Your task to perform on an android device: turn vacation reply on in the gmail app Image 0: 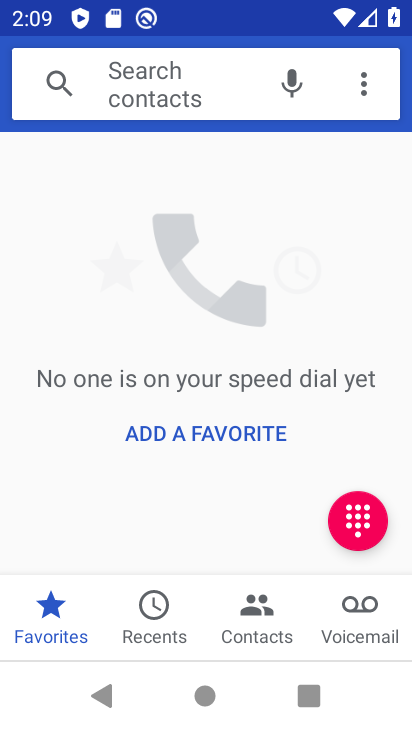
Step 0: press home button
Your task to perform on an android device: turn vacation reply on in the gmail app Image 1: 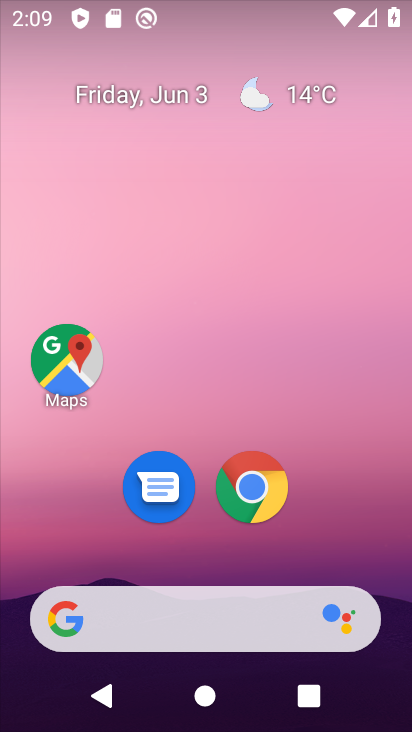
Step 1: drag from (329, 555) to (200, 17)
Your task to perform on an android device: turn vacation reply on in the gmail app Image 2: 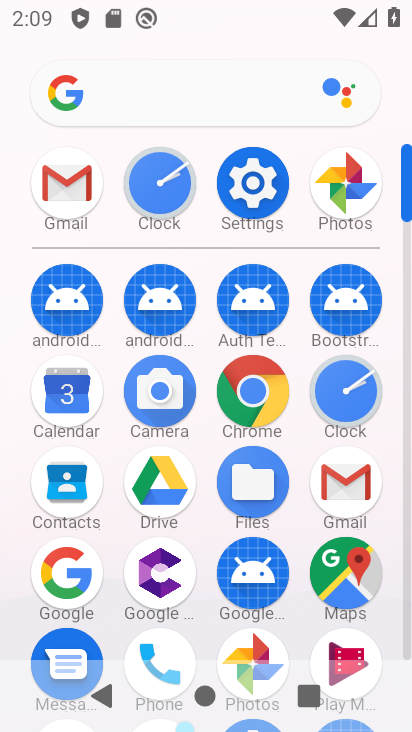
Step 2: click (65, 171)
Your task to perform on an android device: turn vacation reply on in the gmail app Image 3: 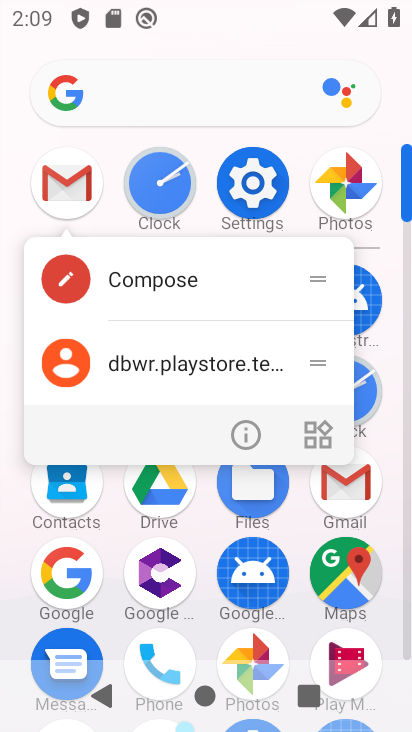
Step 3: click (60, 187)
Your task to perform on an android device: turn vacation reply on in the gmail app Image 4: 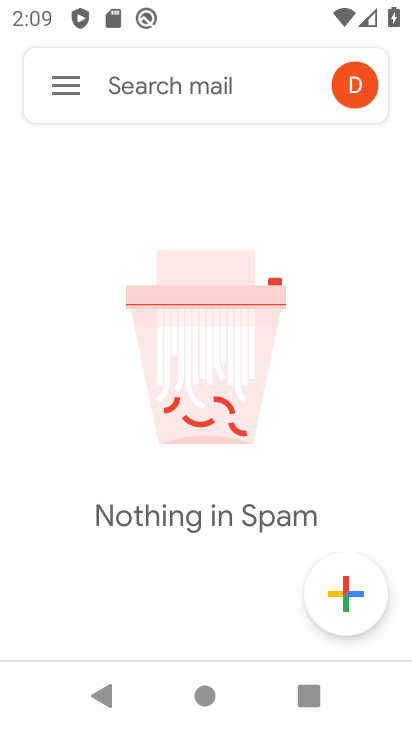
Step 4: click (72, 87)
Your task to perform on an android device: turn vacation reply on in the gmail app Image 5: 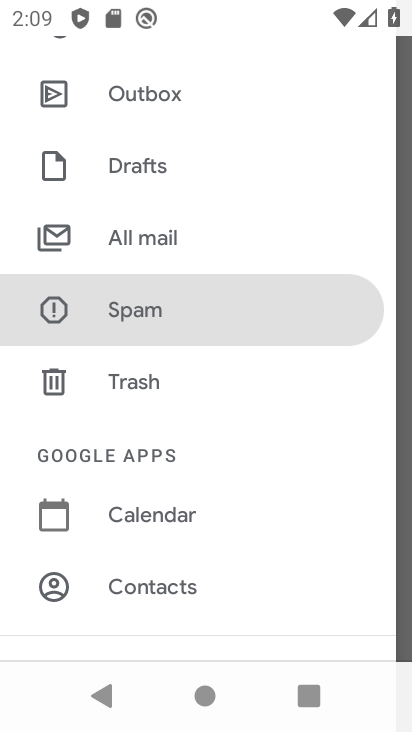
Step 5: drag from (267, 576) to (214, 64)
Your task to perform on an android device: turn vacation reply on in the gmail app Image 6: 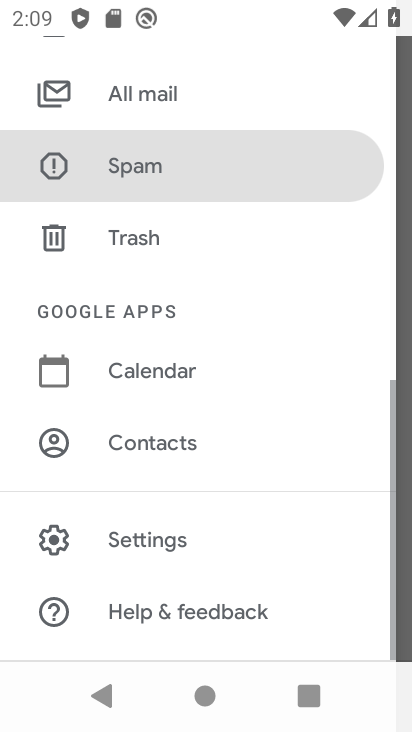
Step 6: click (213, 531)
Your task to perform on an android device: turn vacation reply on in the gmail app Image 7: 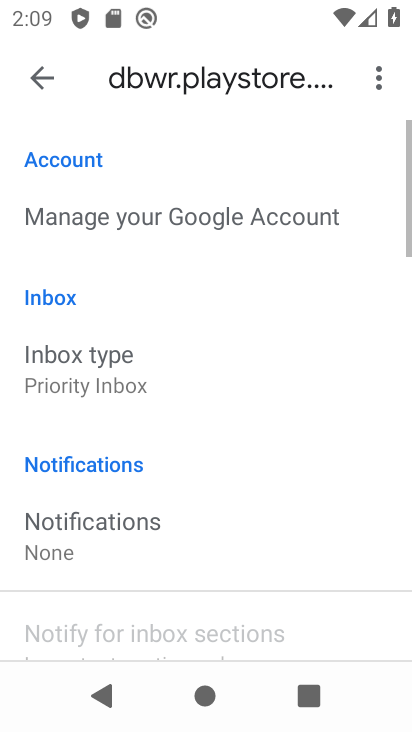
Step 7: drag from (232, 509) to (177, 68)
Your task to perform on an android device: turn vacation reply on in the gmail app Image 8: 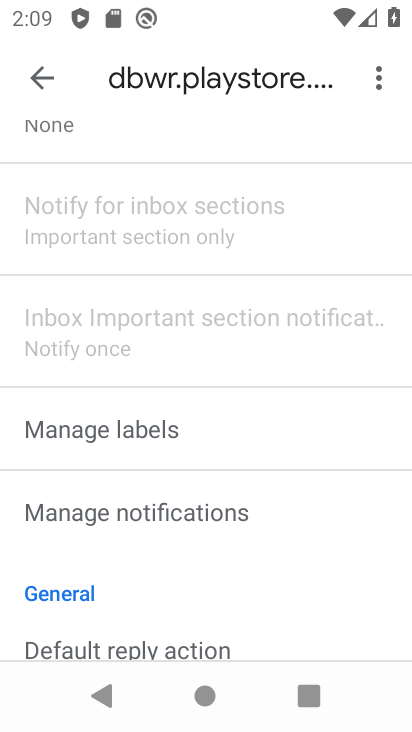
Step 8: drag from (227, 238) to (179, 591)
Your task to perform on an android device: turn vacation reply on in the gmail app Image 9: 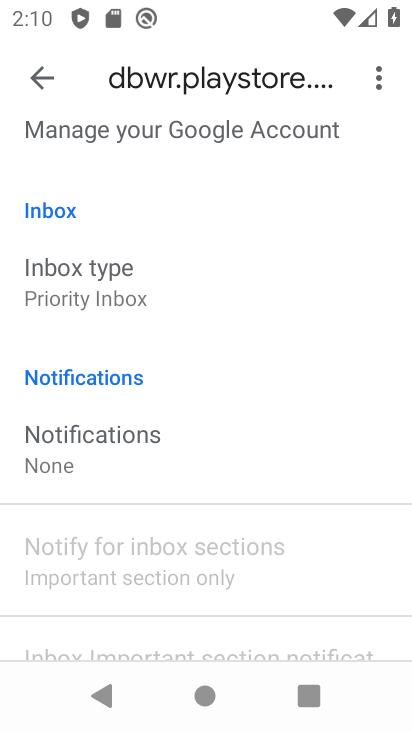
Step 9: drag from (202, 552) to (201, 87)
Your task to perform on an android device: turn vacation reply on in the gmail app Image 10: 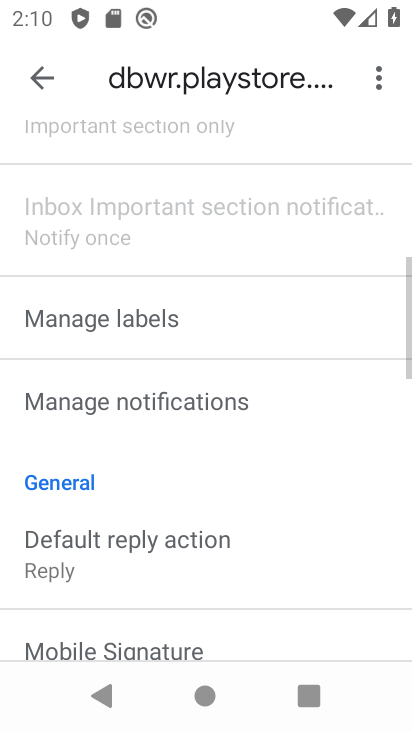
Step 10: drag from (195, 532) to (212, 199)
Your task to perform on an android device: turn vacation reply on in the gmail app Image 11: 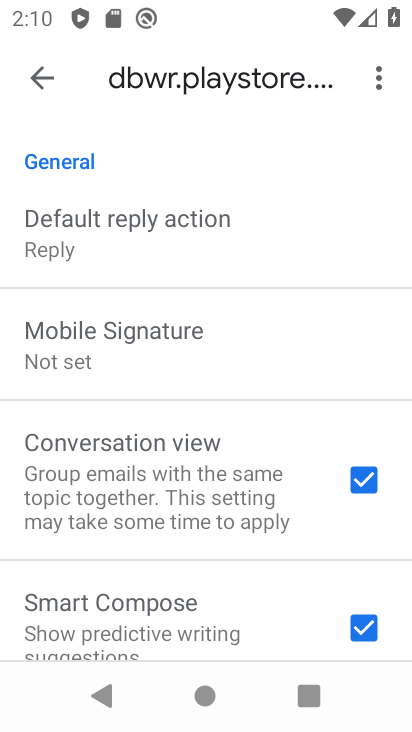
Step 11: drag from (118, 556) to (184, 210)
Your task to perform on an android device: turn vacation reply on in the gmail app Image 12: 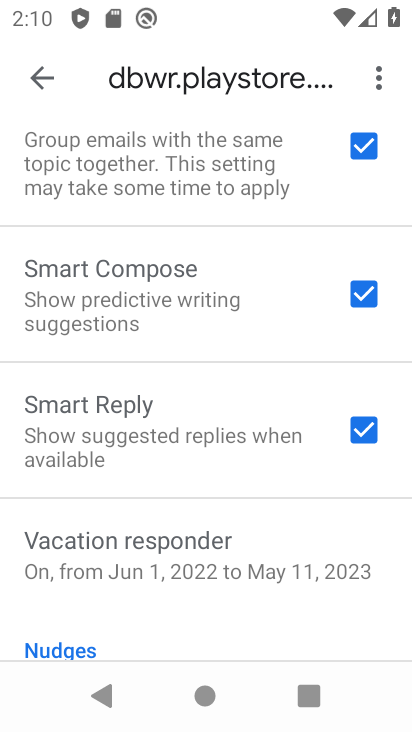
Step 12: click (150, 573)
Your task to perform on an android device: turn vacation reply on in the gmail app Image 13: 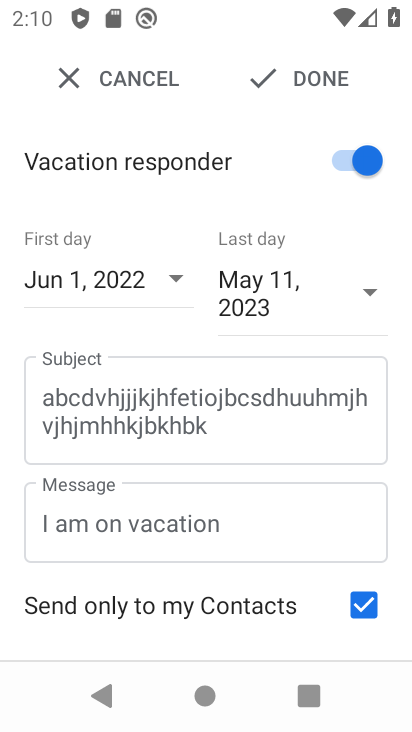
Step 13: click (312, 80)
Your task to perform on an android device: turn vacation reply on in the gmail app Image 14: 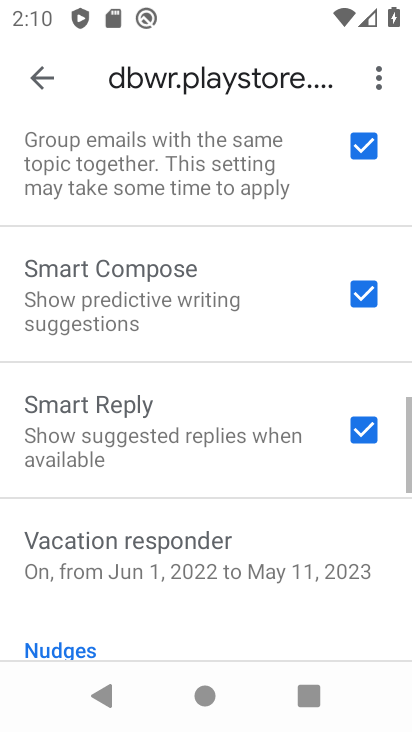
Step 14: task complete